Your task to perform on an android device: see creations saved in the google photos Image 0: 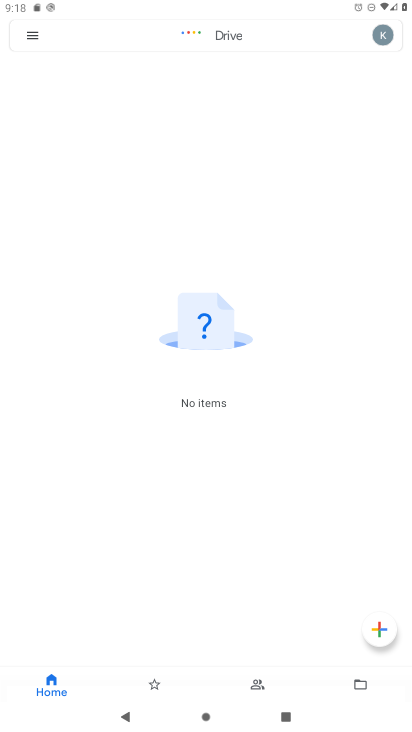
Step 0: press home button
Your task to perform on an android device: see creations saved in the google photos Image 1: 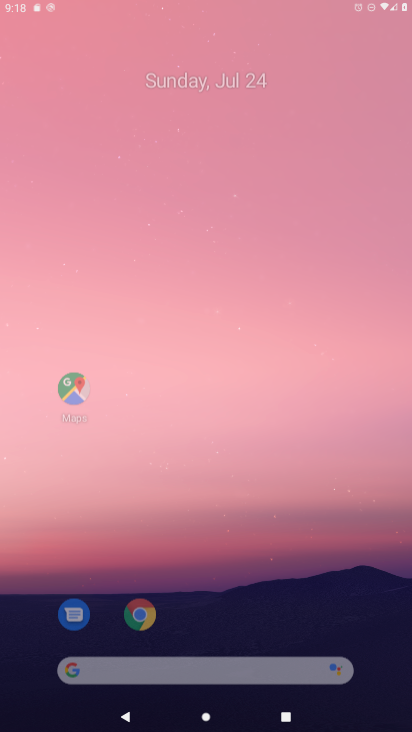
Step 1: drag from (374, 676) to (199, 0)
Your task to perform on an android device: see creations saved in the google photos Image 2: 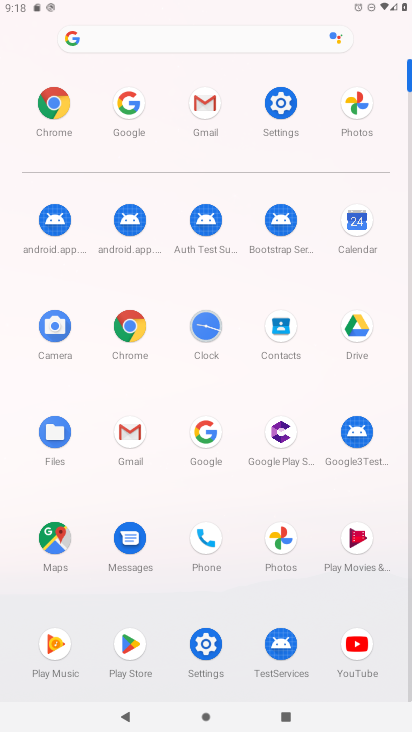
Step 2: click (285, 554)
Your task to perform on an android device: see creations saved in the google photos Image 3: 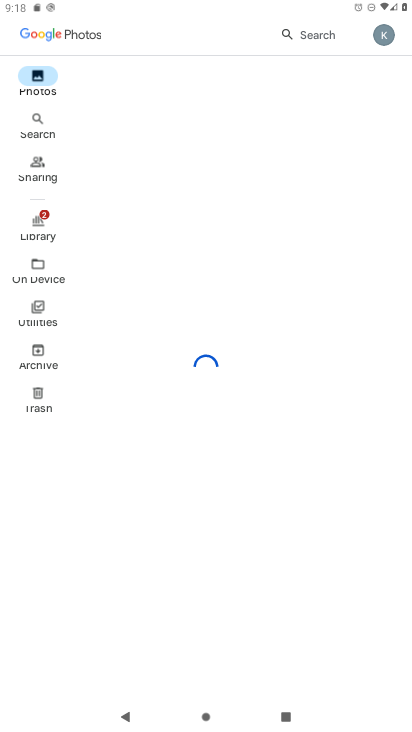
Step 3: click (295, 37)
Your task to perform on an android device: see creations saved in the google photos Image 4: 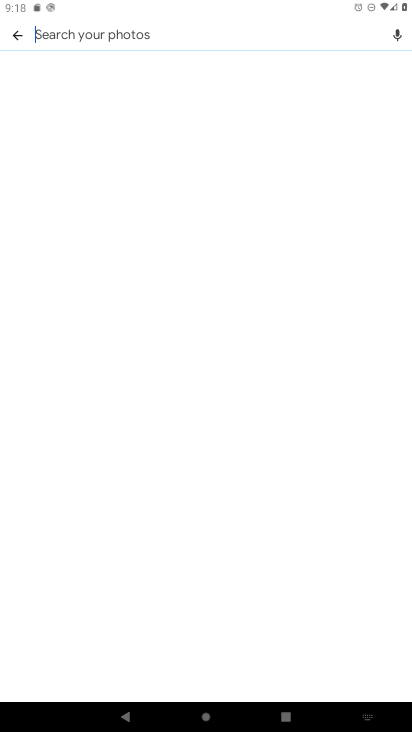
Step 4: press back button
Your task to perform on an android device: see creations saved in the google photos Image 5: 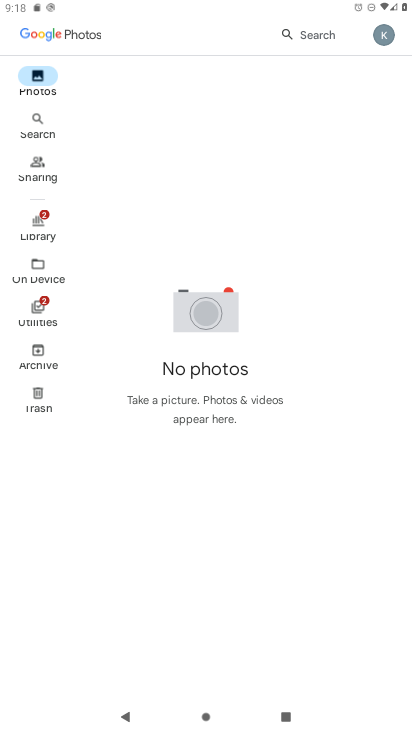
Step 5: click (43, 141)
Your task to perform on an android device: see creations saved in the google photos Image 6: 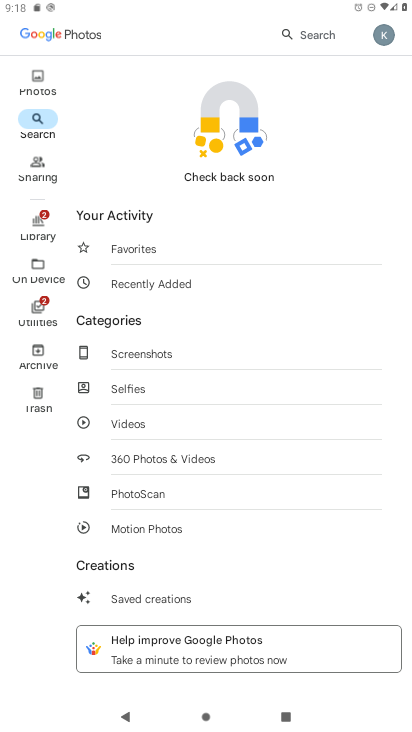
Step 6: click (39, 119)
Your task to perform on an android device: see creations saved in the google photos Image 7: 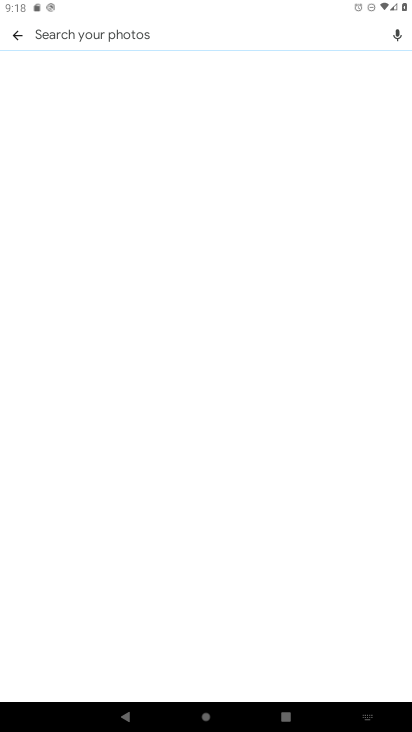
Step 7: press back button
Your task to perform on an android device: see creations saved in the google photos Image 8: 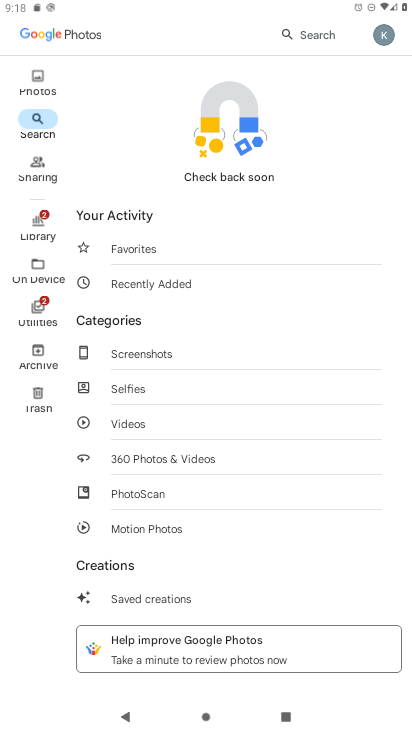
Step 8: click (111, 606)
Your task to perform on an android device: see creations saved in the google photos Image 9: 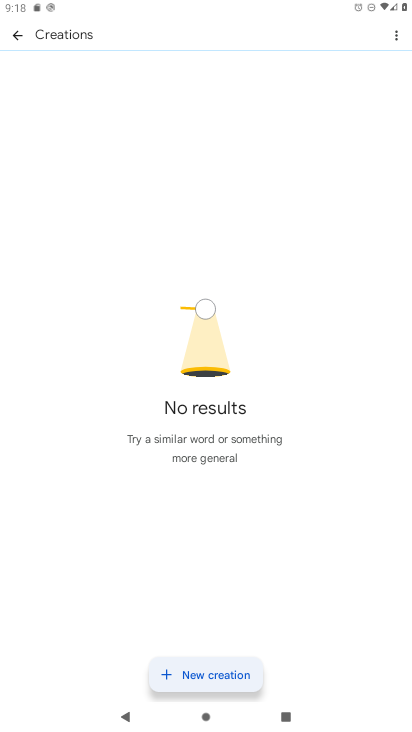
Step 9: task complete